Your task to perform on an android device: toggle improve location accuracy Image 0: 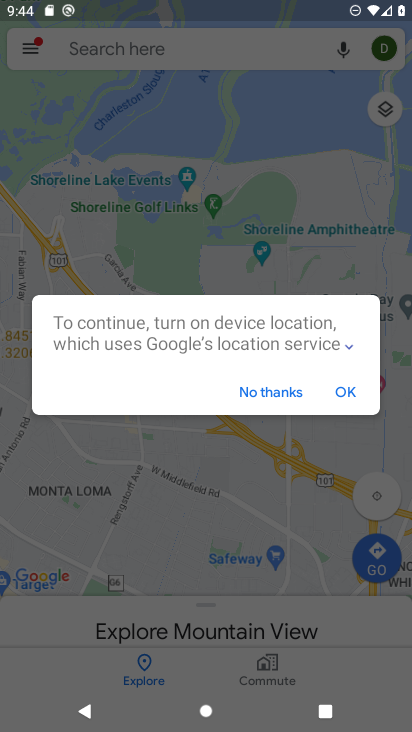
Step 0: press home button
Your task to perform on an android device: toggle improve location accuracy Image 1: 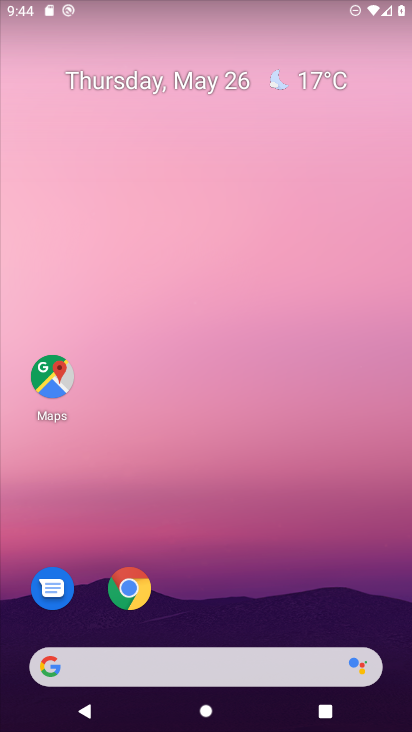
Step 1: drag from (366, 624) to (281, 114)
Your task to perform on an android device: toggle improve location accuracy Image 2: 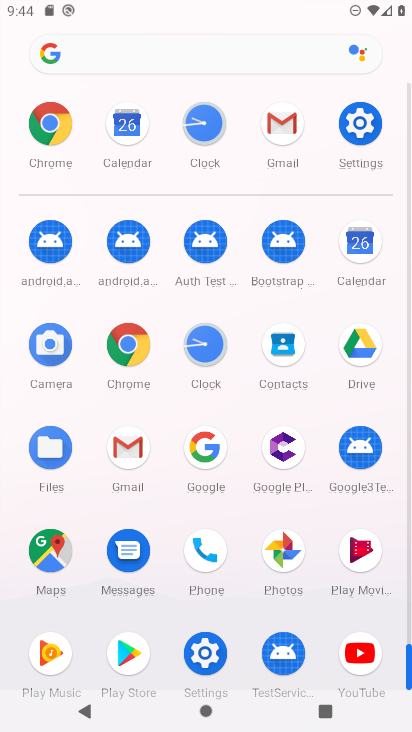
Step 2: click (206, 651)
Your task to perform on an android device: toggle improve location accuracy Image 3: 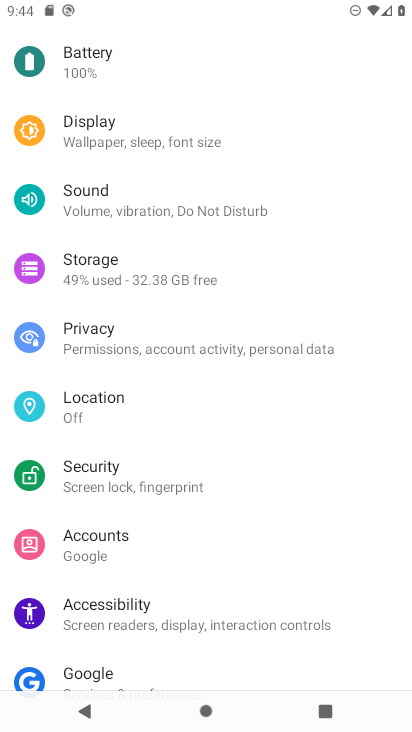
Step 3: click (110, 408)
Your task to perform on an android device: toggle improve location accuracy Image 4: 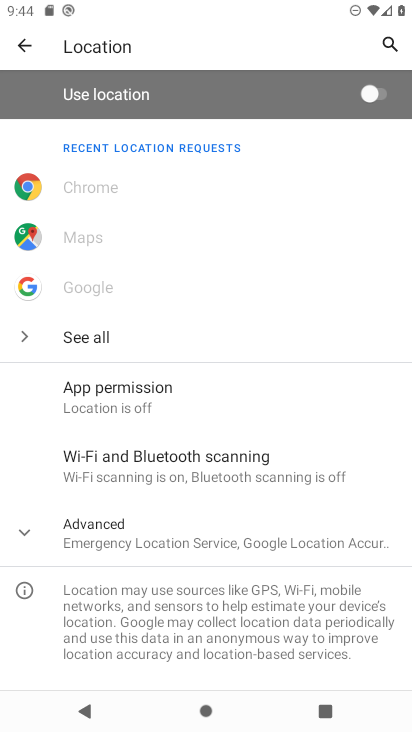
Step 4: click (30, 532)
Your task to perform on an android device: toggle improve location accuracy Image 5: 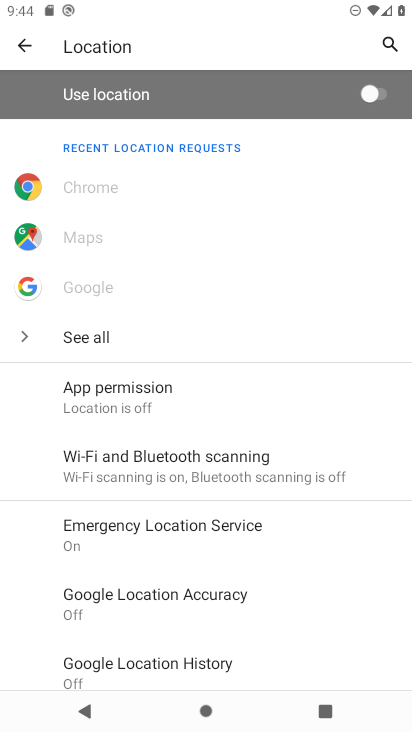
Step 5: click (163, 597)
Your task to perform on an android device: toggle improve location accuracy Image 6: 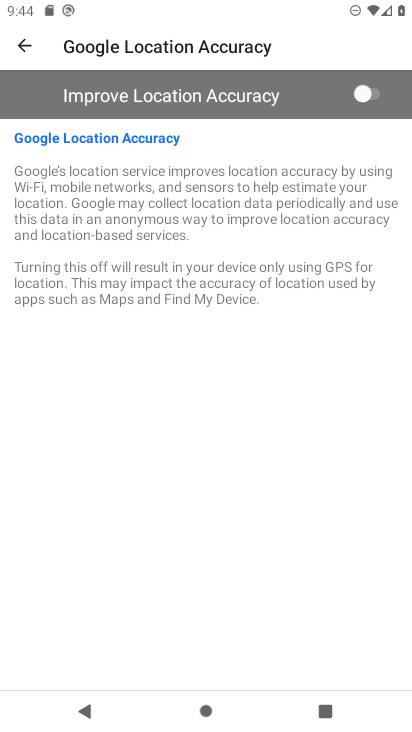
Step 6: click (374, 93)
Your task to perform on an android device: toggle improve location accuracy Image 7: 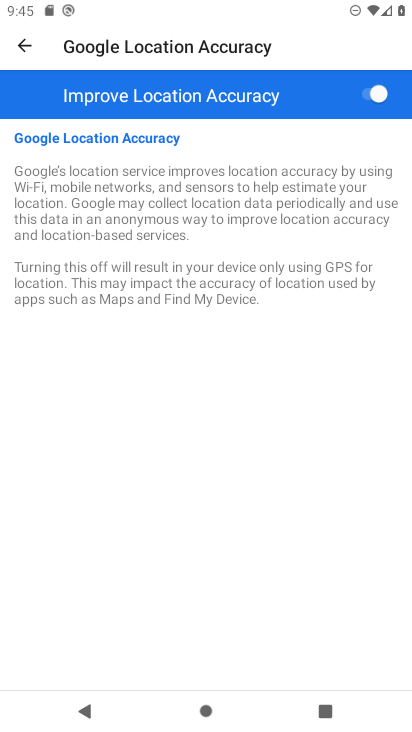
Step 7: task complete